Your task to perform on an android device: Open Yahoo.com Image 0: 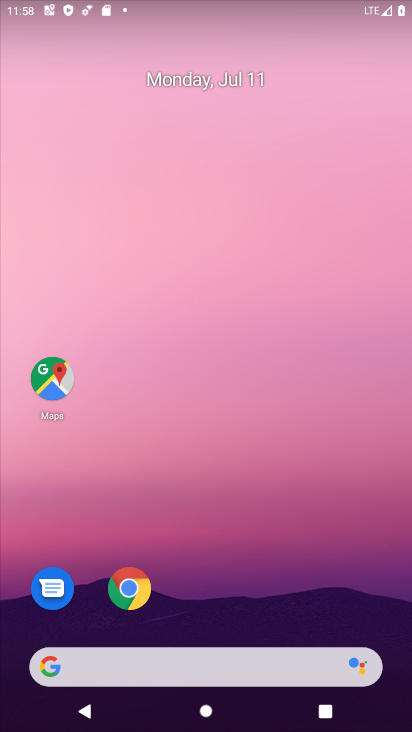
Step 0: click (133, 586)
Your task to perform on an android device: Open Yahoo.com Image 1: 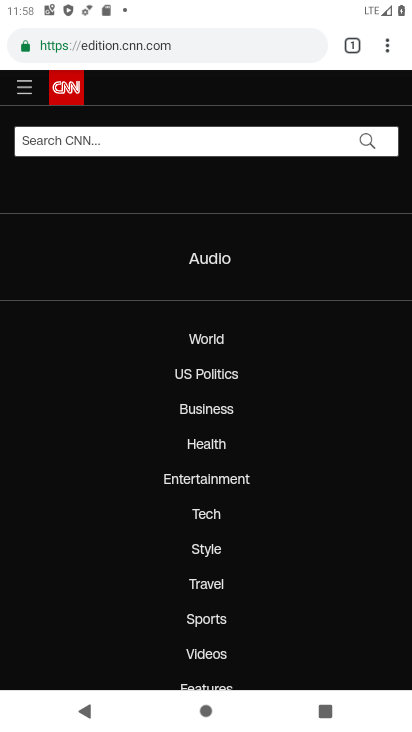
Step 1: click (220, 49)
Your task to perform on an android device: Open Yahoo.com Image 2: 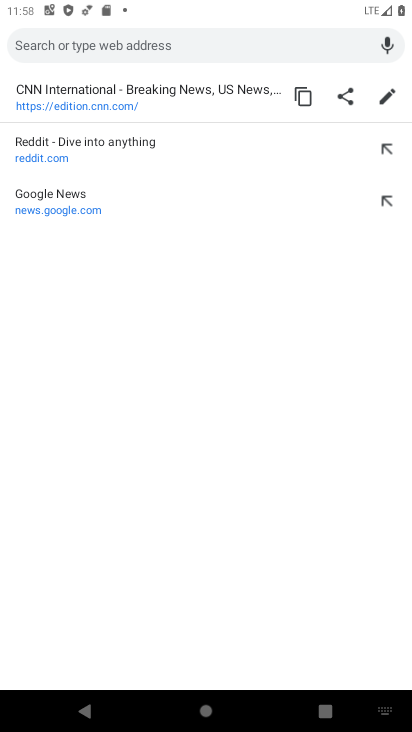
Step 2: type "yahoo.com"
Your task to perform on an android device: Open Yahoo.com Image 3: 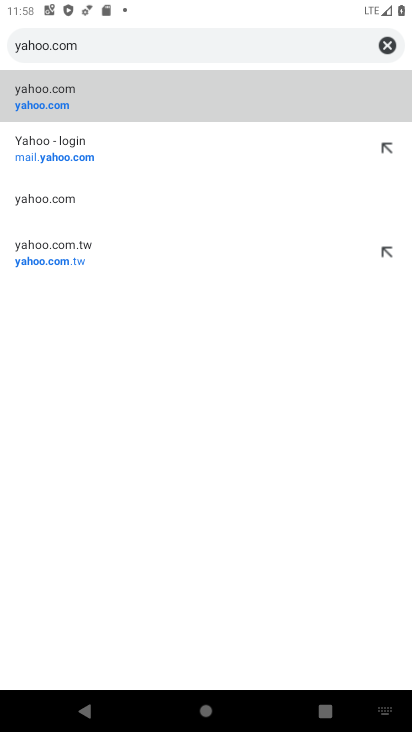
Step 3: click (54, 104)
Your task to perform on an android device: Open Yahoo.com Image 4: 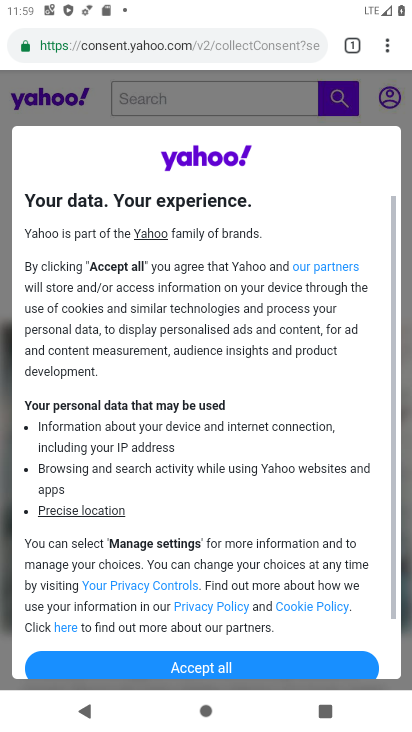
Step 4: task complete